Your task to perform on an android device: turn off notifications settings in the gmail app Image 0: 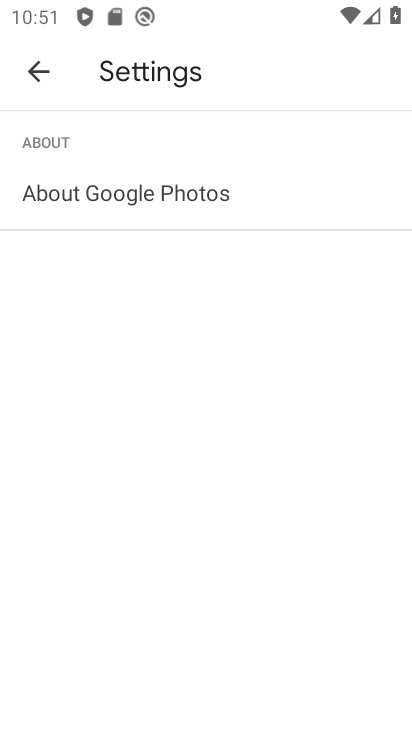
Step 0: press home button
Your task to perform on an android device: turn off notifications settings in the gmail app Image 1: 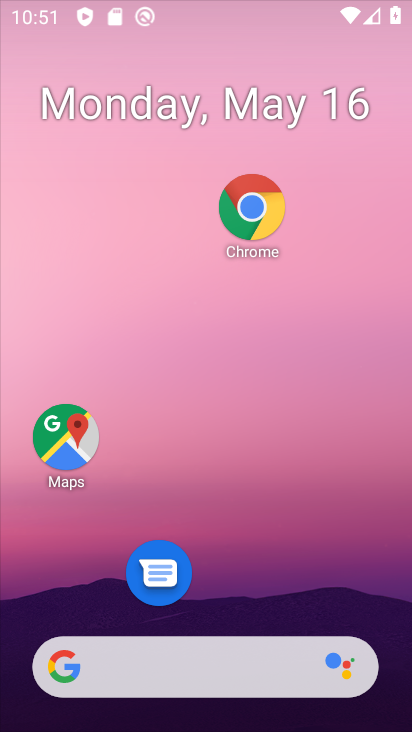
Step 1: drag from (265, 713) to (264, 39)
Your task to perform on an android device: turn off notifications settings in the gmail app Image 2: 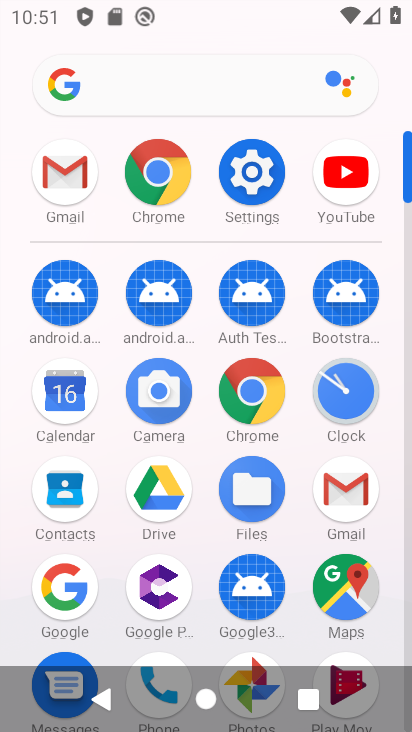
Step 2: click (347, 482)
Your task to perform on an android device: turn off notifications settings in the gmail app Image 3: 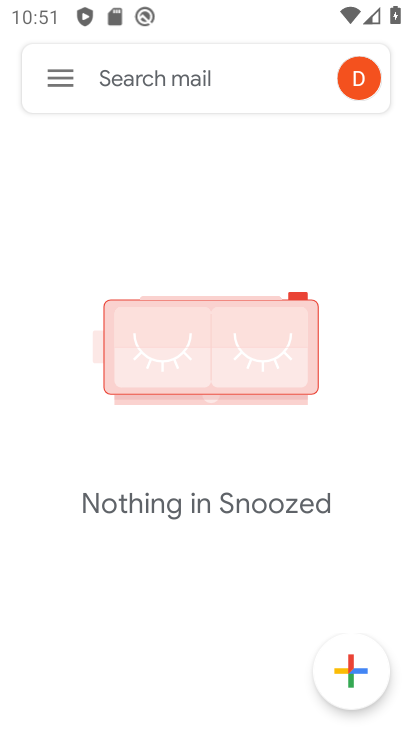
Step 3: click (58, 79)
Your task to perform on an android device: turn off notifications settings in the gmail app Image 4: 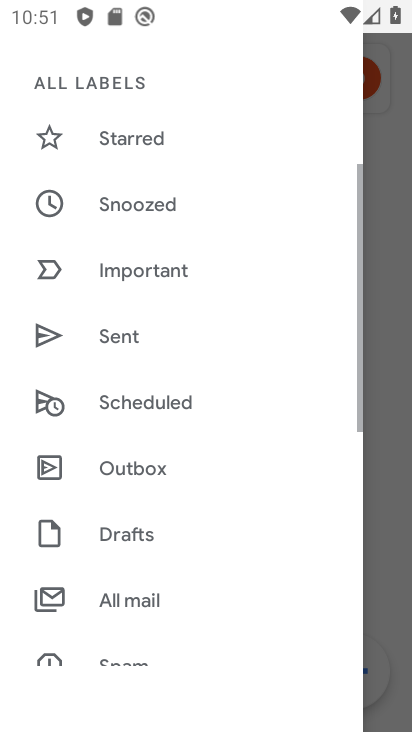
Step 4: drag from (210, 570) to (231, 108)
Your task to perform on an android device: turn off notifications settings in the gmail app Image 5: 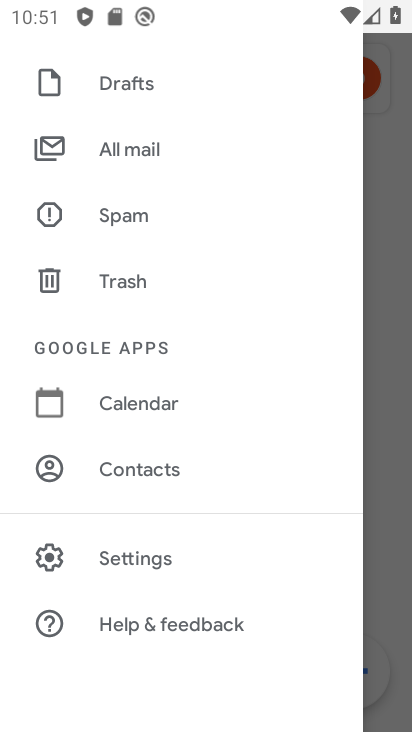
Step 5: click (156, 571)
Your task to perform on an android device: turn off notifications settings in the gmail app Image 6: 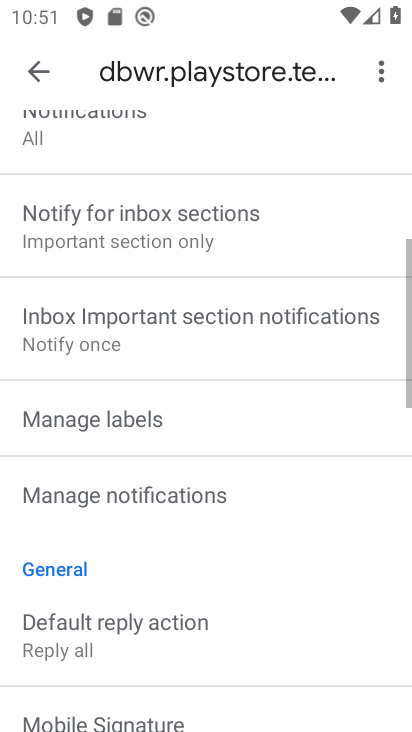
Step 6: drag from (156, 571) to (213, 224)
Your task to perform on an android device: turn off notifications settings in the gmail app Image 7: 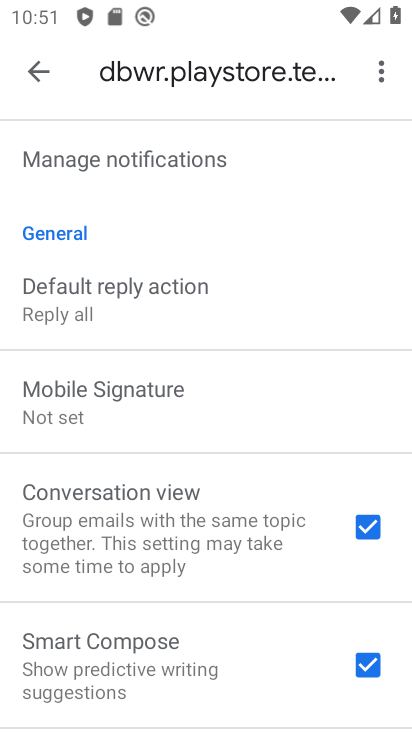
Step 7: click (218, 155)
Your task to perform on an android device: turn off notifications settings in the gmail app Image 8: 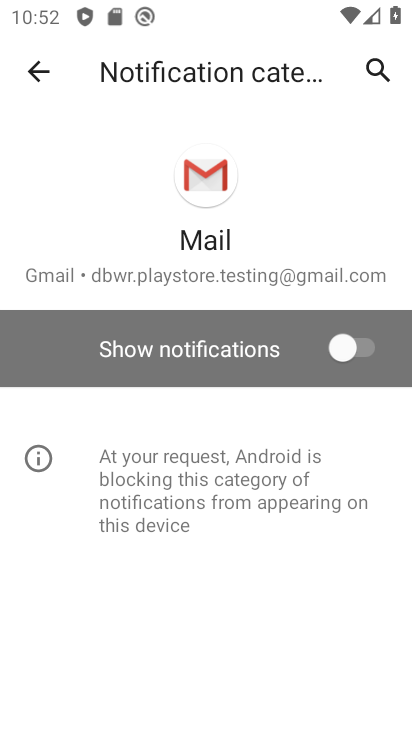
Step 8: task complete